Your task to perform on an android device: set the timer Image 0: 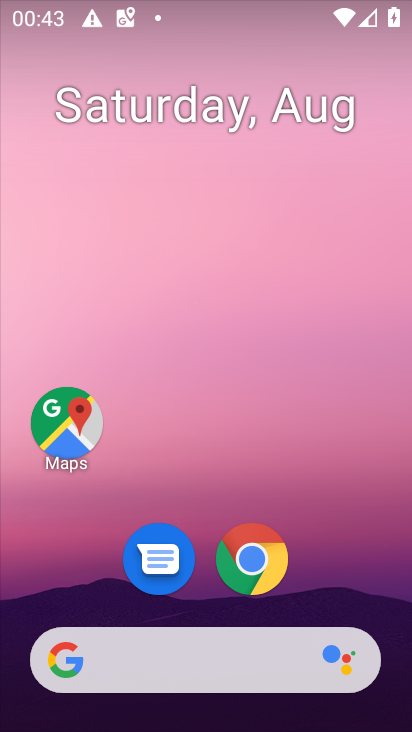
Step 0: drag from (352, 583) to (282, 89)
Your task to perform on an android device: set the timer Image 1: 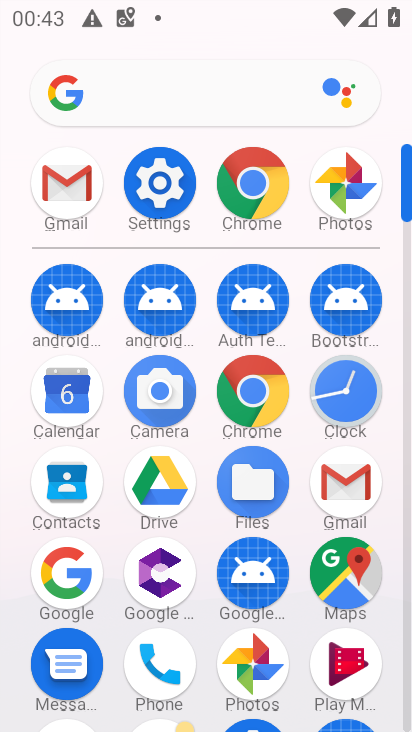
Step 1: click (352, 406)
Your task to perform on an android device: set the timer Image 2: 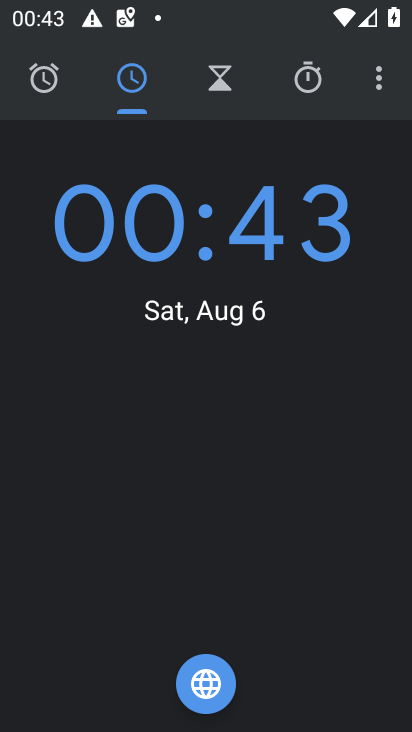
Step 2: click (234, 98)
Your task to perform on an android device: set the timer Image 3: 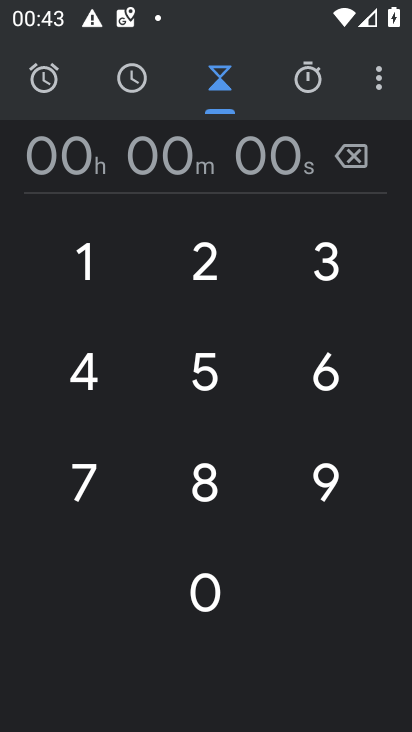
Step 3: type "588888"
Your task to perform on an android device: set the timer Image 4: 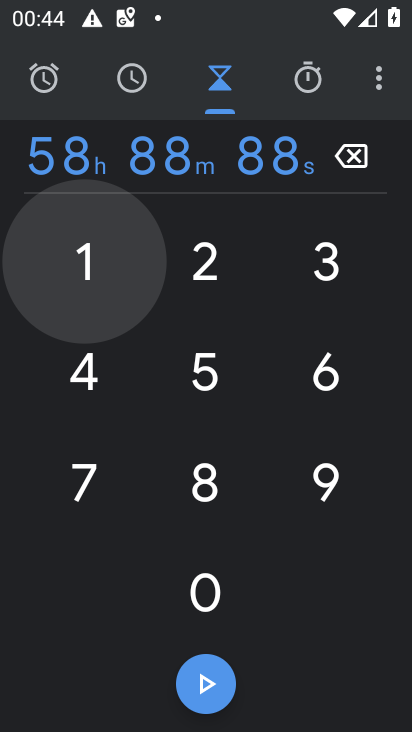
Step 4: click (214, 673)
Your task to perform on an android device: set the timer Image 5: 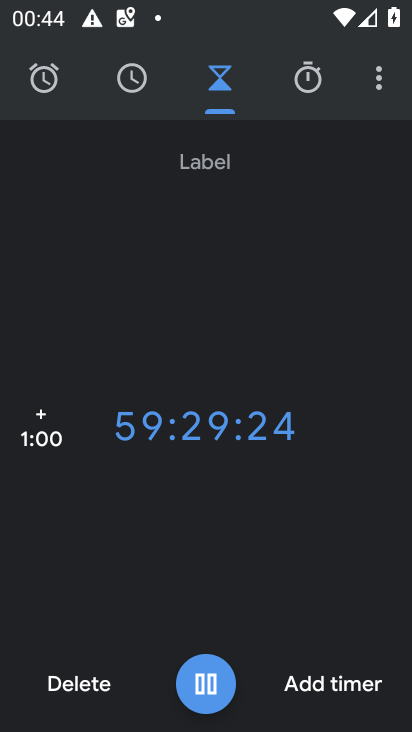
Step 5: task complete